Your task to perform on an android device: turn on showing notifications on the lock screen Image 0: 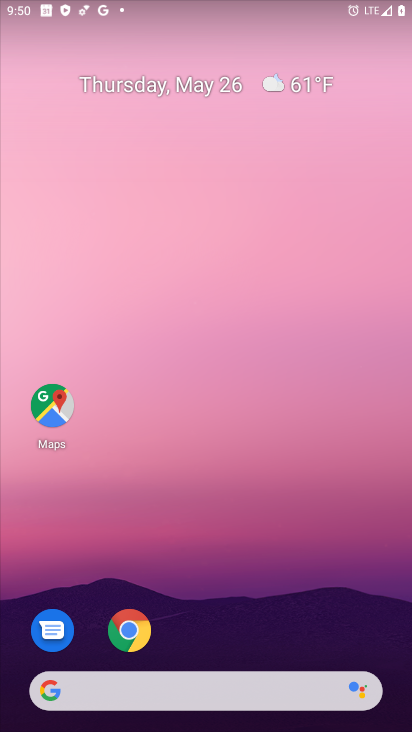
Step 0: drag from (190, 662) to (246, 2)
Your task to perform on an android device: turn on showing notifications on the lock screen Image 1: 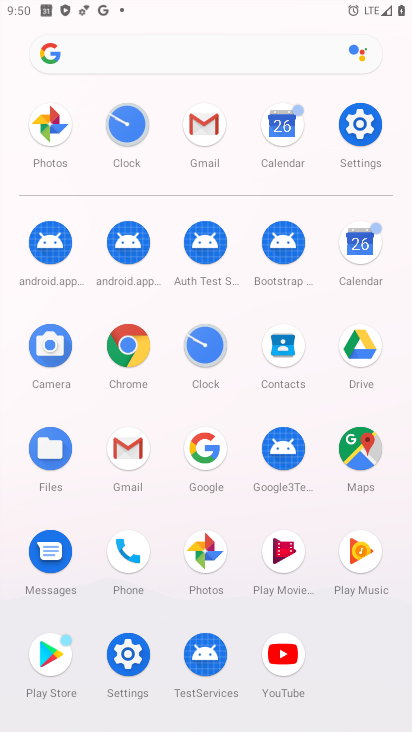
Step 1: click (360, 143)
Your task to perform on an android device: turn on showing notifications on the lock screen Image 2: 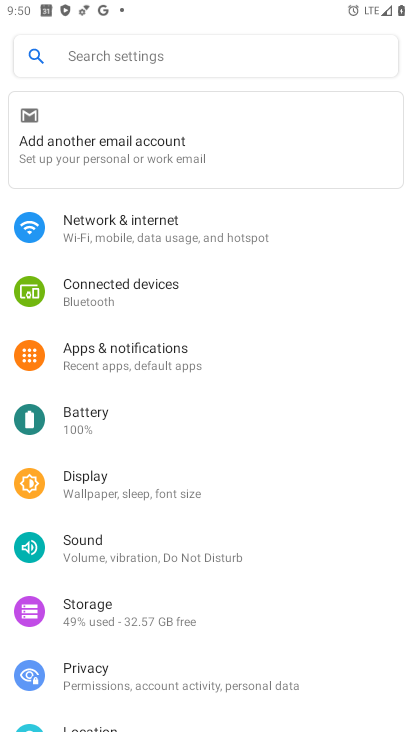
Step 2: click (134, 341)
Your task to perform on an android device: turn on showing notifications on the lock screen Image 3: 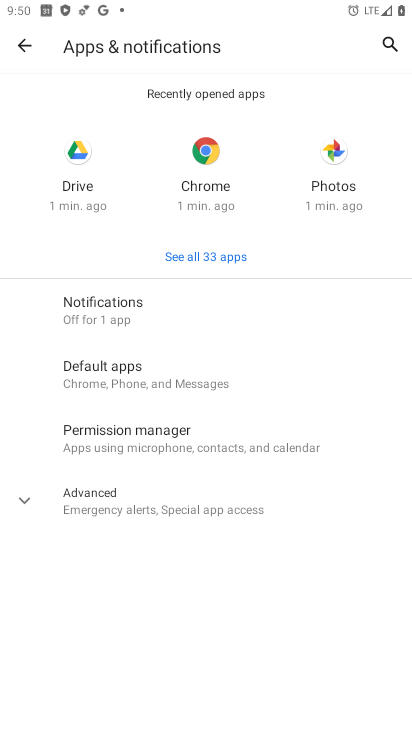
Step 3: click (124, 309)
Your task to perform on an android device: turn on showing notifications on the lock screen Image 4: 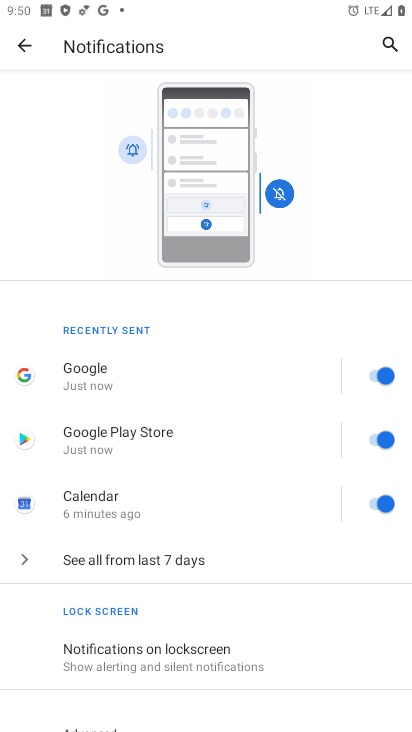
Step 4: click (88, 641)
Your task to perform on an android device: turn on showing notifications on the lock screen Image 5: 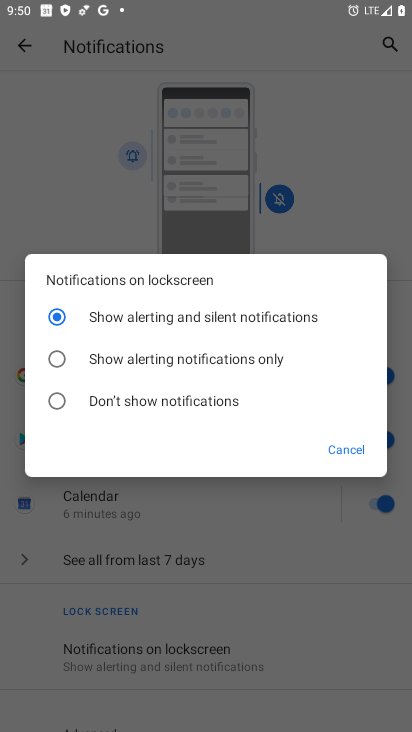
Step 5: click (228, 324)
Your task to perform on an android device: turn on showing notifications on the lock screen Image 6: 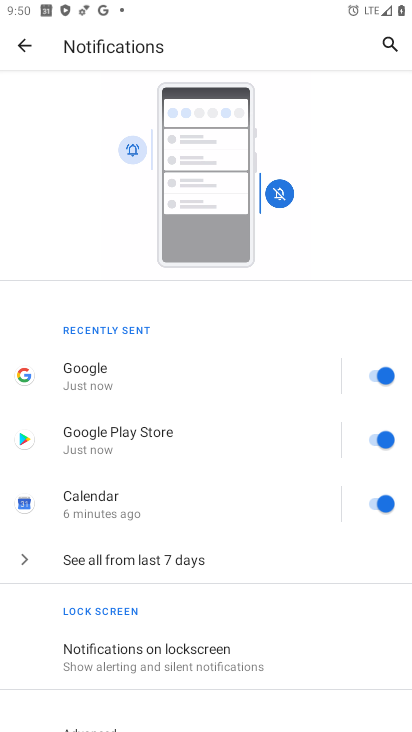
Step 6: task complete